Your task to perform on an android device: Open calendar and show me the fourth week of next month Image 0: 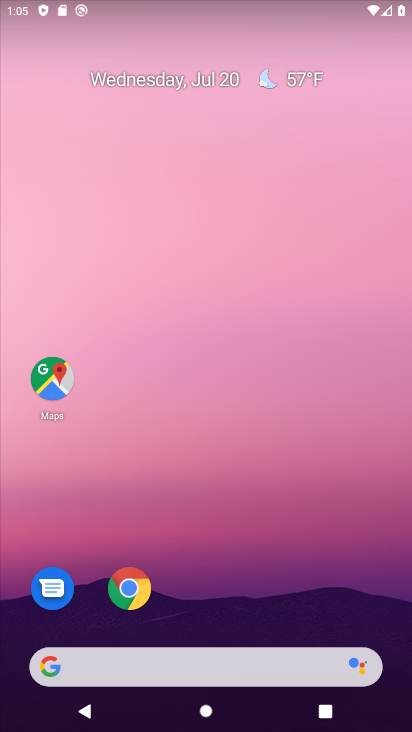
Step 0: drag from (31, 729) to (323, 52)
Your task to perform on an android device: Open calendar and show me the fourth week of next month Image 1: 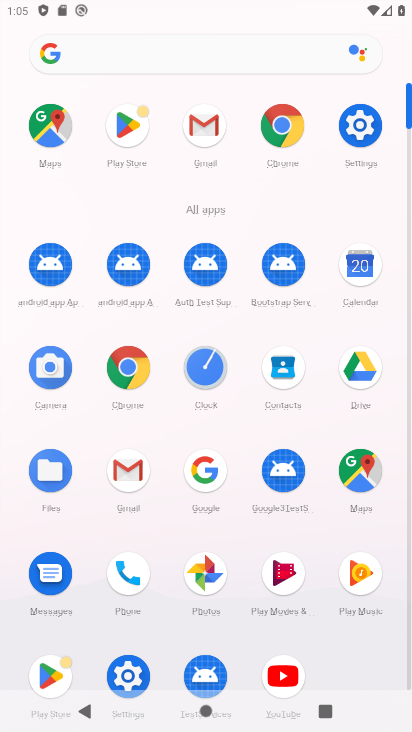
Step 1: click (369, 269)
Your task to perform on an android device: Open calendar and show me the fourth week of next month Image 2: 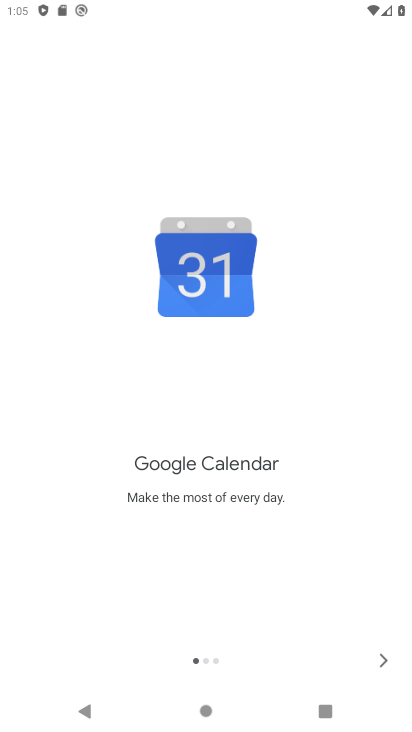
Step 2: click (379, 656)
Your task to perform on an android device: Open calendar and show me the fourth week of next month Image 3: 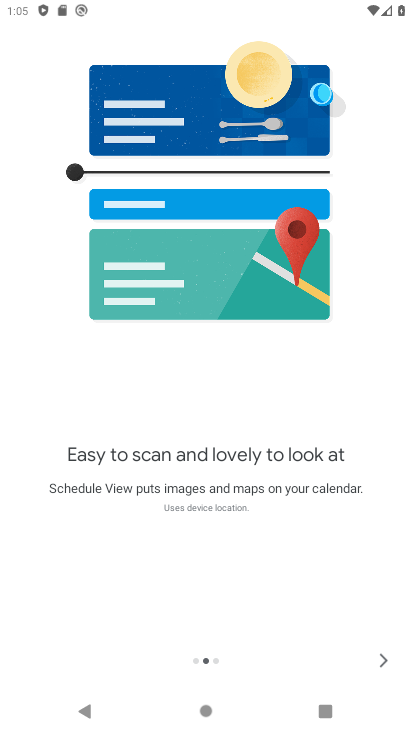
Step 3: click (379, 656)
Your task to perform on an android device: Open calendar and show me the fourth week of next month Image 4: 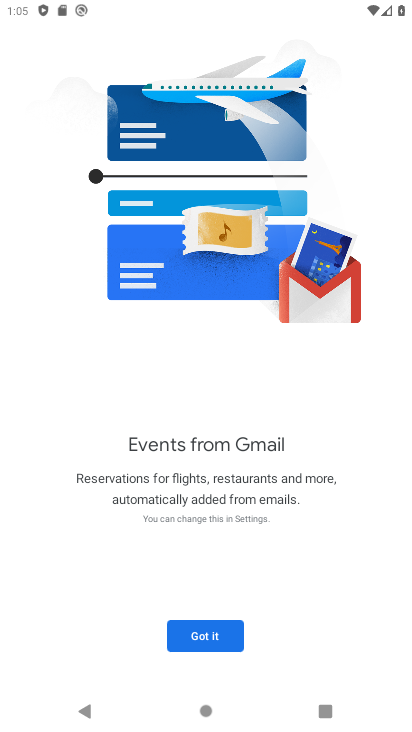
Step 4: click (216, 646)
Your task to perform on an android device: Open calendar and show me the fourth week of next month Image 5: 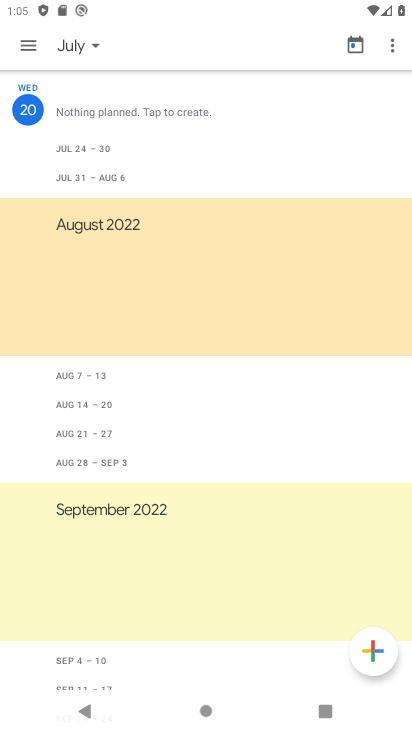
Step 5: click (82, 49)
Your task to perform on an android device: Open calendar and show me the fourth week of next month Image 6: 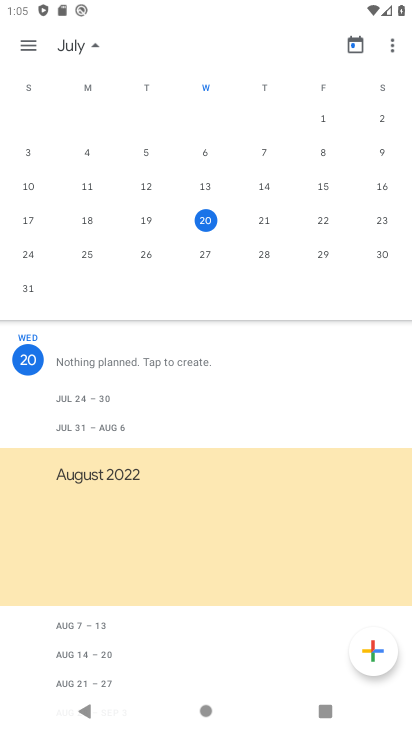
Step 6: task complete